Your task to perform on an android device: Open the phone app and click the voicemail tab. Image 0: 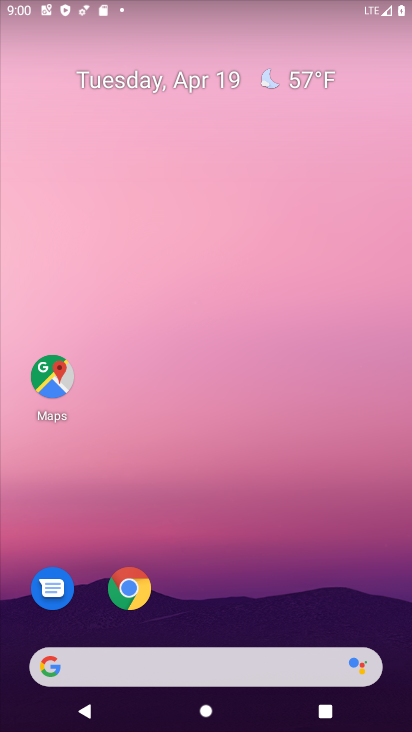
Step 0: drag from (279, 589) to (228, 26)
Your task to perform on an android device: Open the phone app and click the voicemail tab. Image 1: 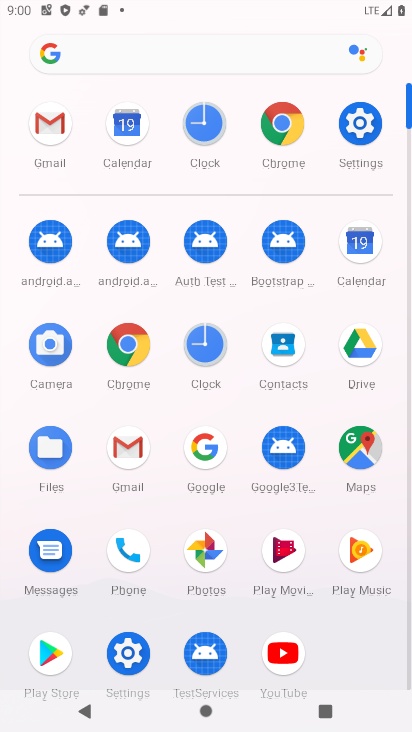
Step 1: click (127, 540)
Your task to perform on an android device: Open the phone app and click the voicemail tab. Image 2: 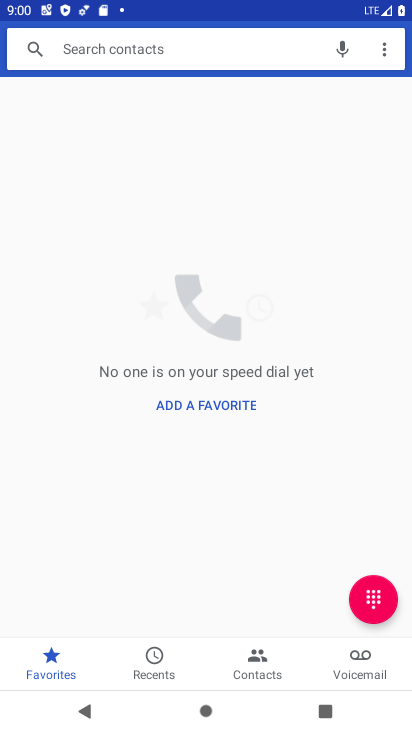
Step 2: click (343, 670)
Your task to perform on an android device: Open the phone app and click the voicemail tab. Image 3: 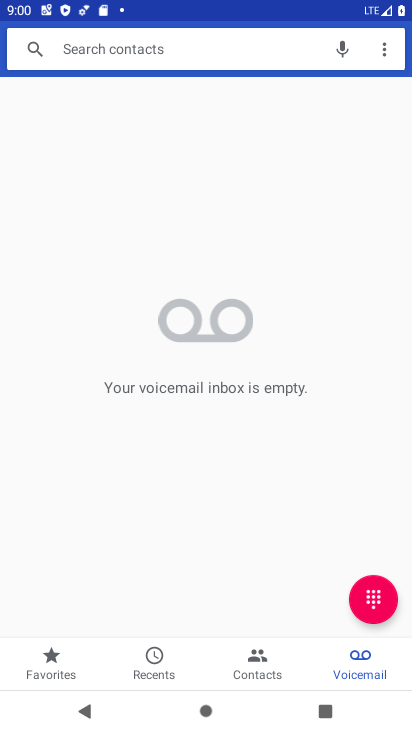
Step 3: task complete